Your task to perform on an android device: Do I have any events today? Image 0: 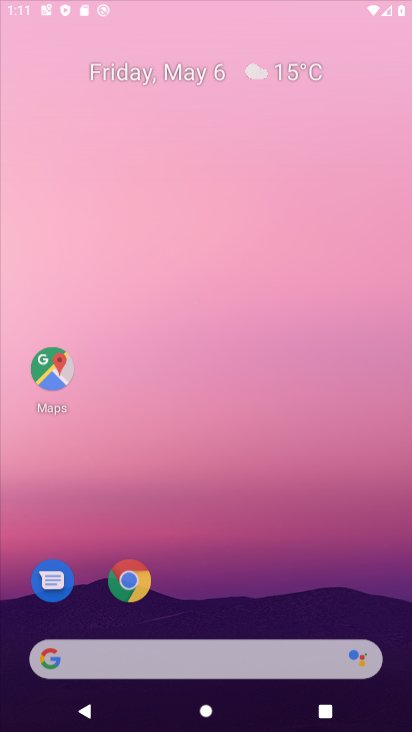
Step 0: click (217, 138)
Your task to perform on an android device: Do I have any events today? Image 1: 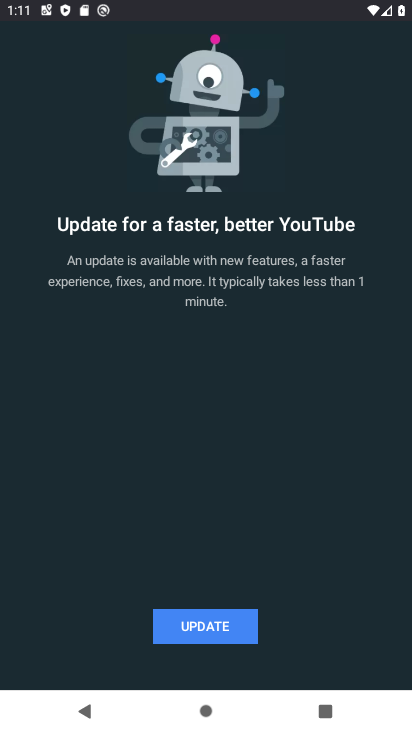
Step 1: press home button
Your task to perform on an android device: Do I have any events today? Image 2: 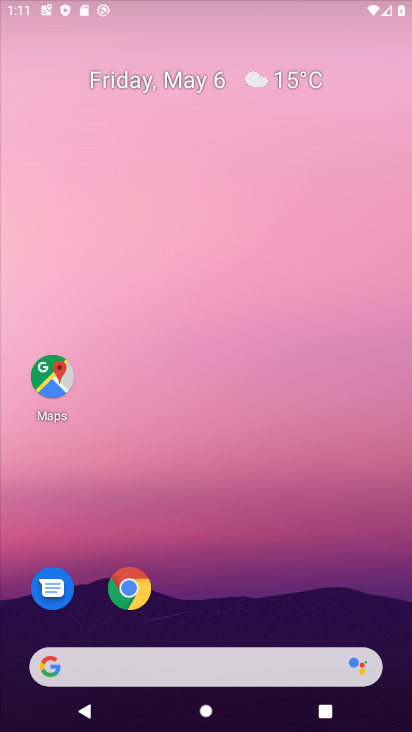
Step 2: drag from (229, 588) to (257, 227)
Your task to perform on an android device: Do I have any events today? Image 3: 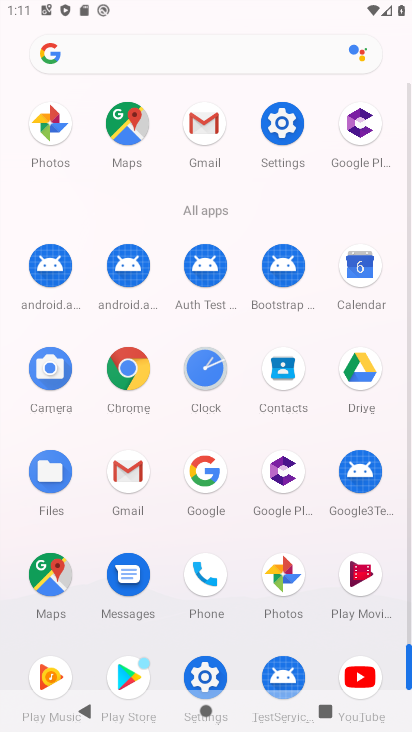
Step 3: drag from (244, 661) to (261, 242)
Your task to perform on an android device: Do I have any events today? Image 4: 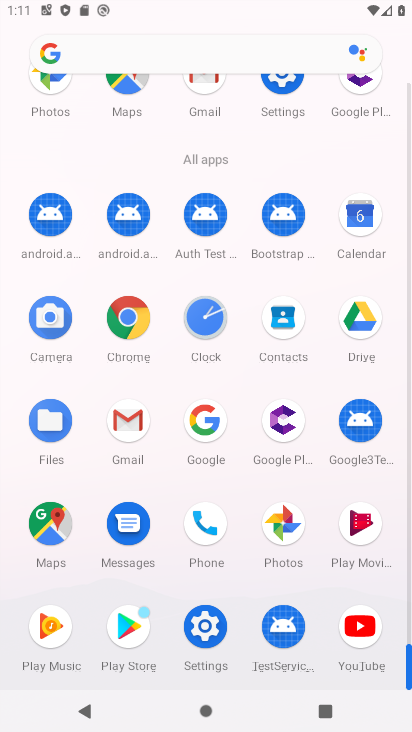
Step 4: drag from (249, 172) to (247, 577)
Your task to perform on an android device: Do I have any events today? Image 5: 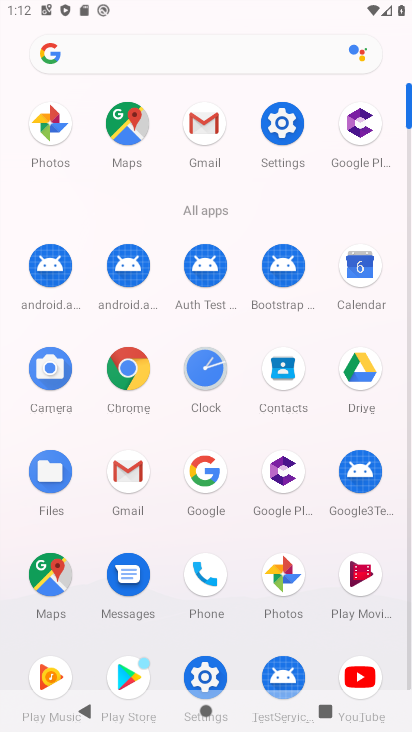
Step 5: click (348, 267)
Your task to perform on an android device: Do I have any events today? Image 6: 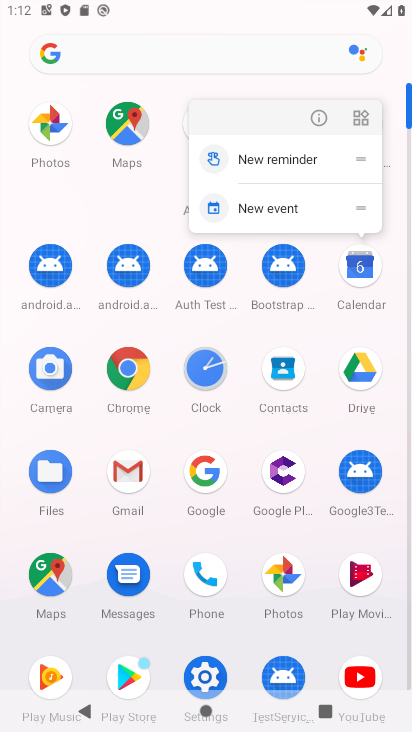
Step 6: click (308, 112)
Your task to perform on an android device: Do I have any events today? Image 7: 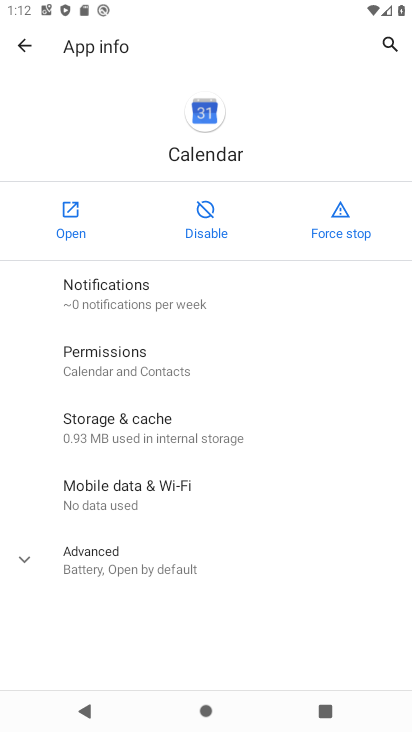
Step 7: click (70, 205)
Your task to perform on an android device: Do I have any events today? Image 8: 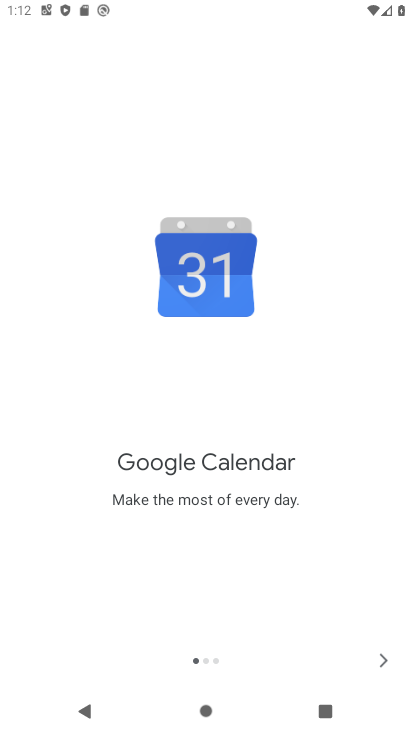
Step 8: click (387, 656)
Your task to perform on an android device: Do I have any events today? Image 9: 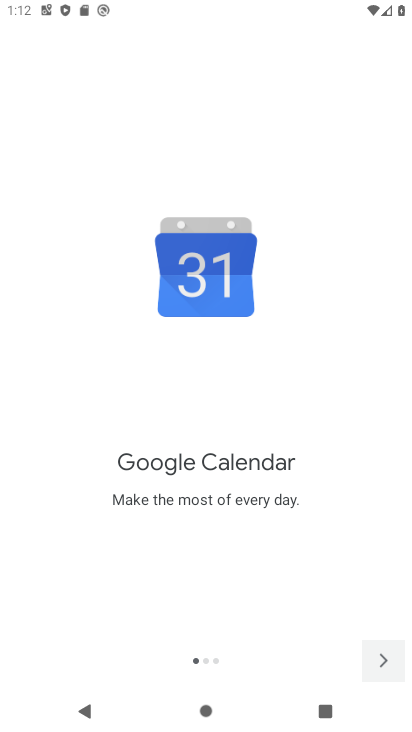
Step 9: click (387, 656)
Your task to perform on an android device: Do I have any events today? Image 10: 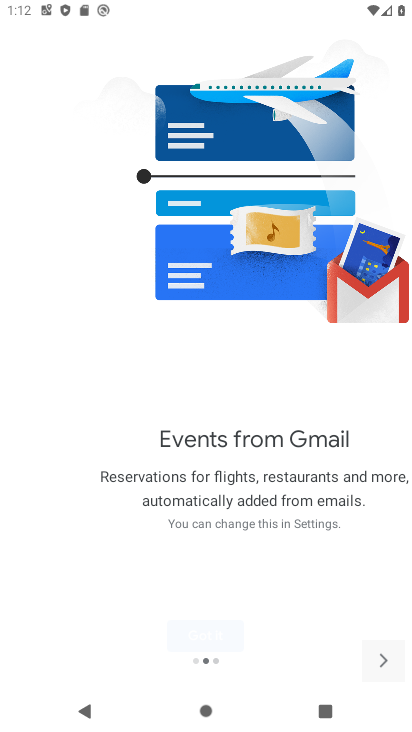
Step 10: click (387, 656)
Your task to perform on an android device: Do I have any events today? Image 11: 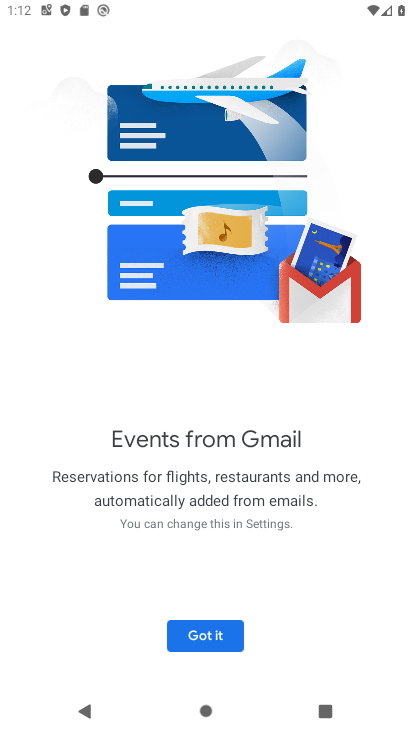
Step 11: click (387, 656)
Your task to perform on an android device: Do I have any events today? Image 12: 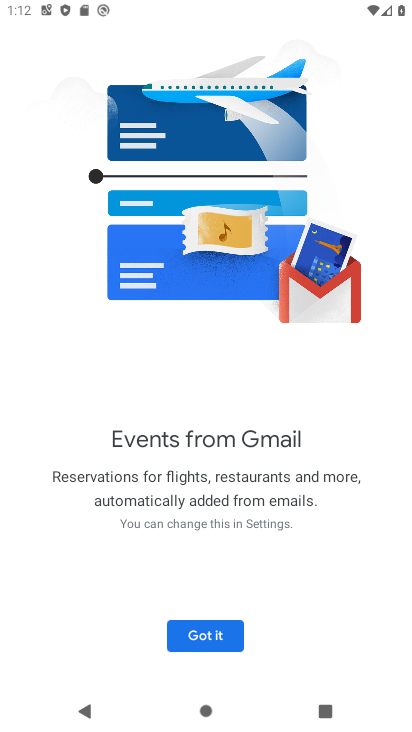
Step 12: click (205, 638)
Your task to perform on an android device: Do I have any events today? Image 13: 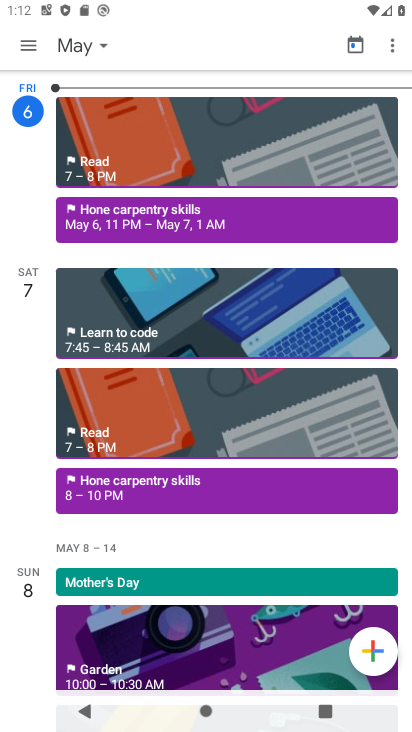
Step 13: click (73, 48)
Your task to perform on an android device: Do I have any events today? Image 14: 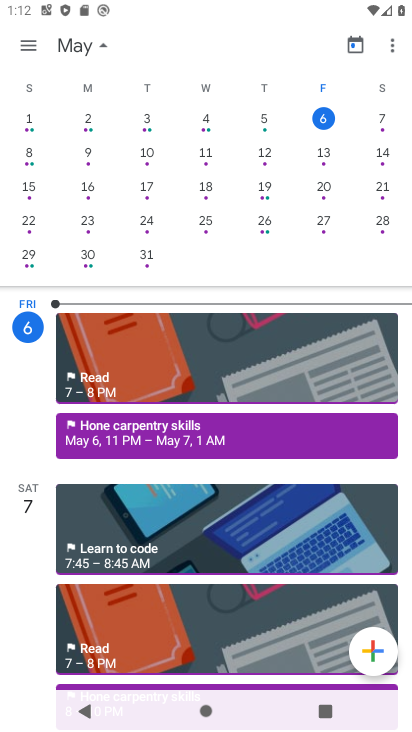
Step 14: click (322, 121)
Your task to perform on an android device: Do I have any events today? Image 15: 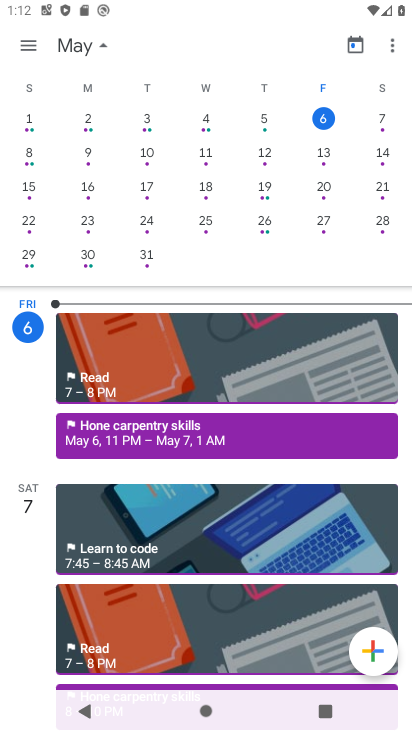
Step 15: task complete